Your task to perform on an android device: Open battery settings Image 0: 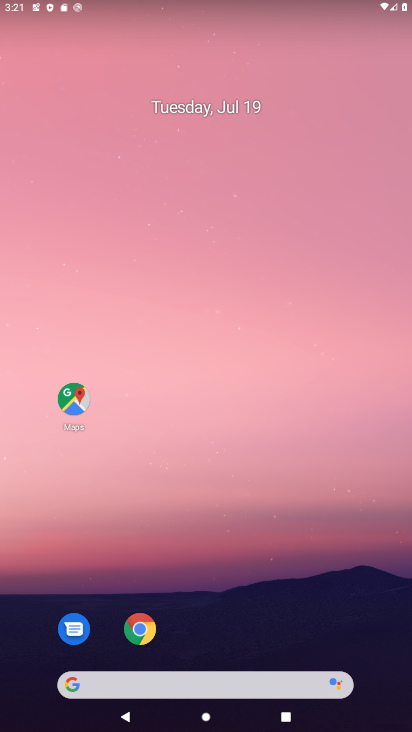
Step 0: drag from (188, 691) to (244, 189)
Your task to perform on an android device: Open battery settings Image 1: 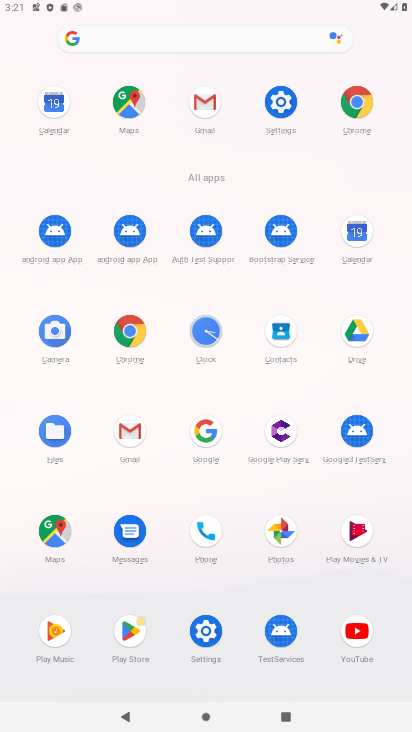
Step 1: click (279, 131)
Your task to perform on an android device: Open battery settings Image 2: 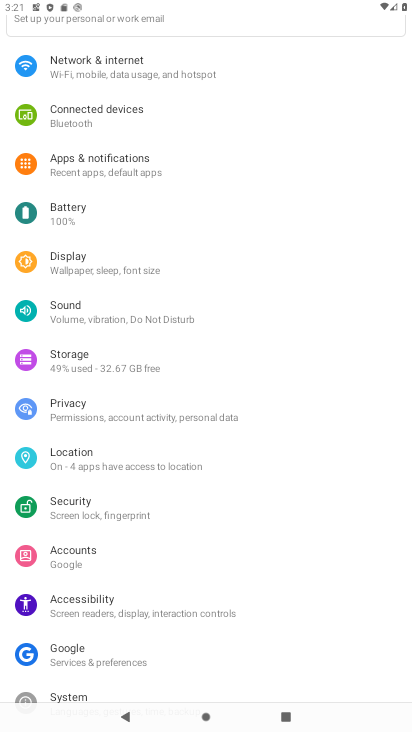
Step 2: click (77, 214)
Your task to perform on an android device: Open battery settings Image 3: 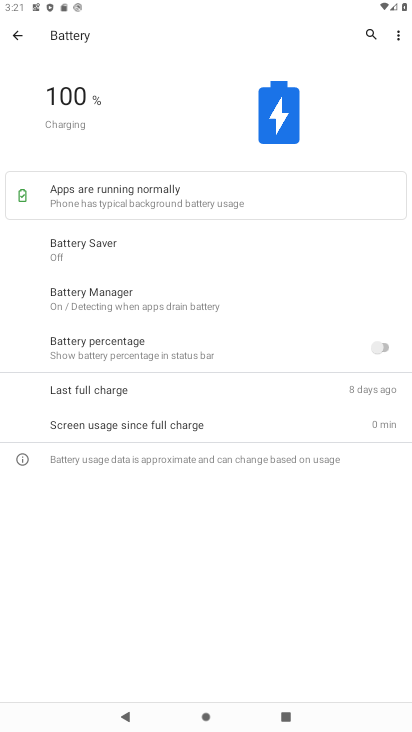
Step 3: task complete